Your task to perform on an android device: turn on notifications settings in the gmail app Image 0: 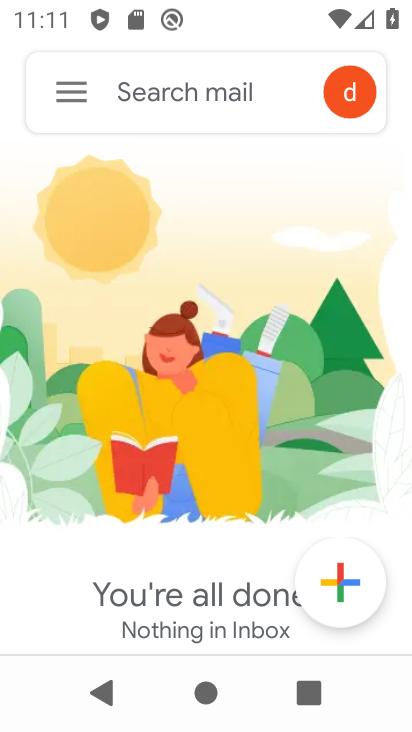
Step 0: click (72, 82)
Your task to perform on an android device: turn on notifications settings in the gmail app Image 1: 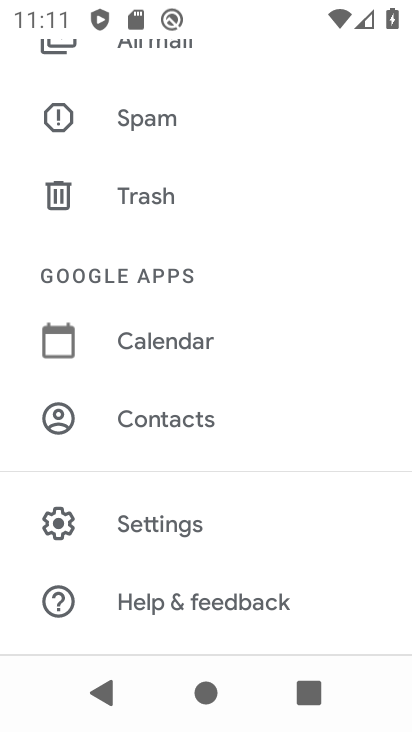
Step 1: click (195, 511)
Your task to perform on an android device: turn on notifications settings in the gmail app Image 2: 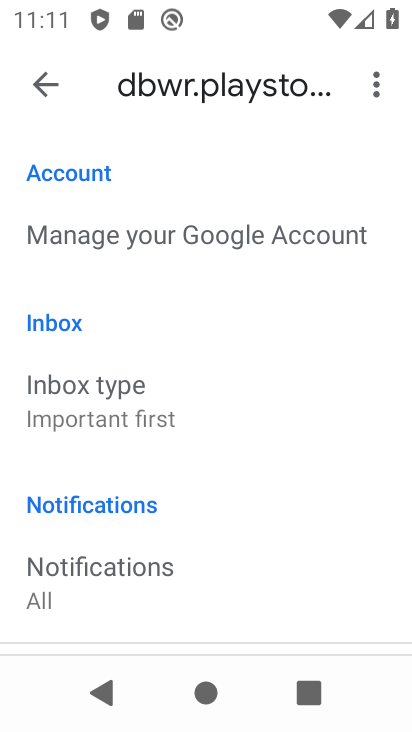
Step 2: drag from (252, 506) to (247, 147)
Your task to perform on an android device: turn on notifications settings in the gmail app Image 3: 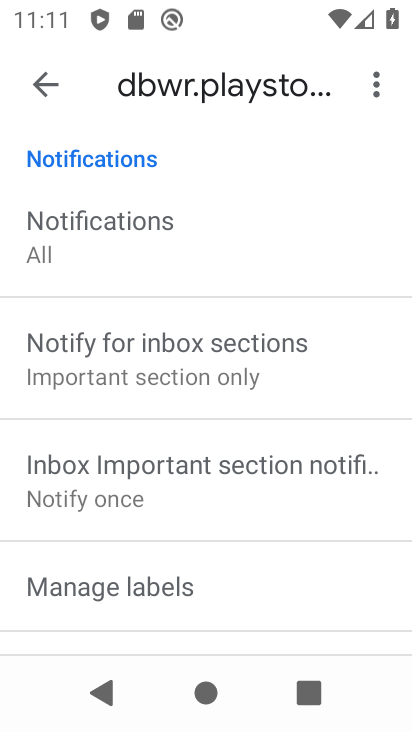
Step 3: drag from (271, 510) to (270, 139)
Your task to perform on an android device: turn on notifications settings in the gmail app Image 4: 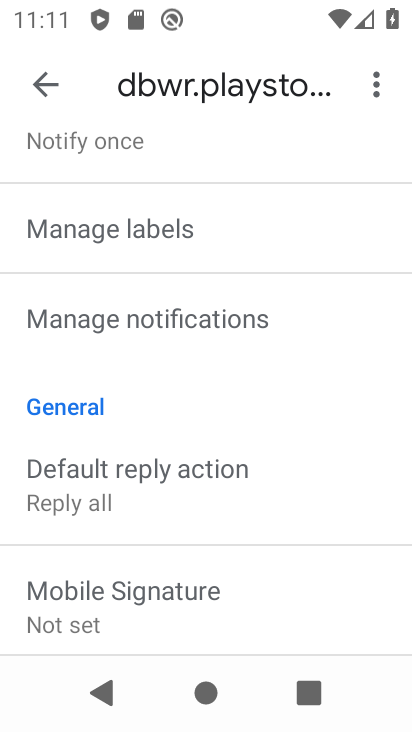
Step 4: drag from (245, 550) to (281, 136)
Your task to perform on an android device: turn on notifications settings in the gmail app Image 5: 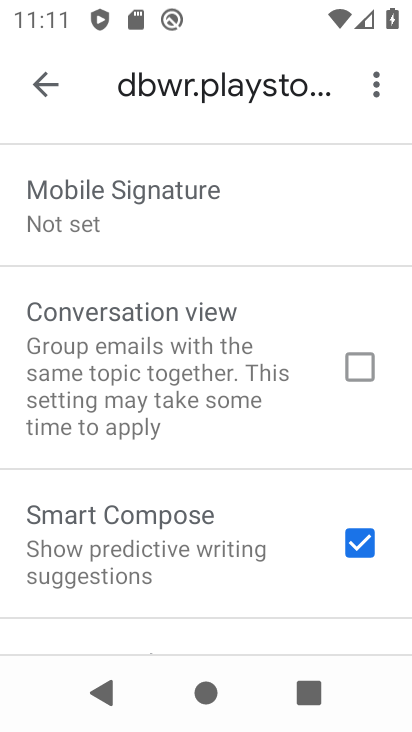
Step 5: drag from (235, 548) to (241, 163)
Your task to perform on an android device: turn on notifications settings in the gmail app Image 6: 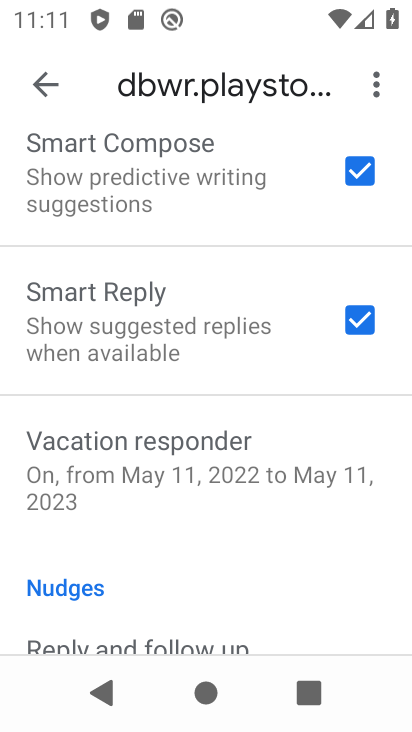
Step 6: drag from (184, 579) to (214, 203)
Your task to perform on an android device: turn on notifications settings in the gmail app Image 7: 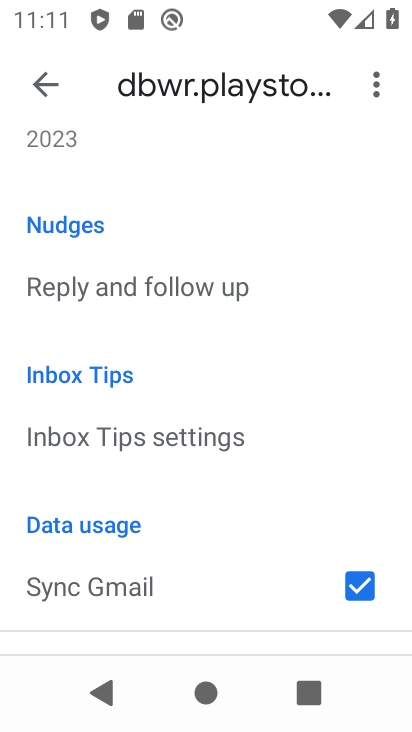
Step 7: drag from (216, 200) to (211, 586)
Your task to perform on an android device: turn on notifications settings in the gmail app Image 8: 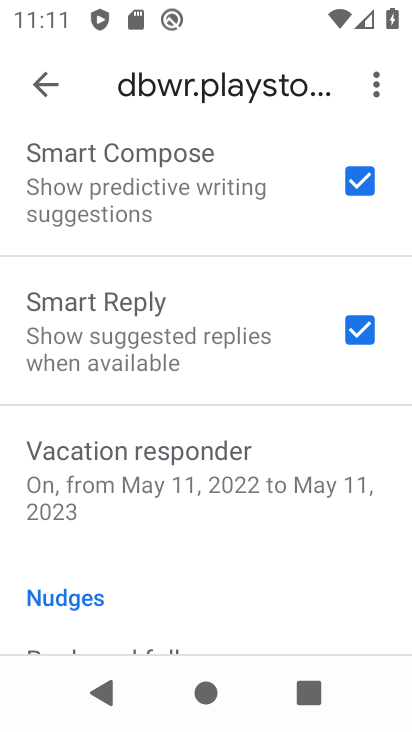
Step 8: drag from (201, 285) to (194, 655)
Your task to perform on an android device: turn on notifications settings in the gmail app Image 9: 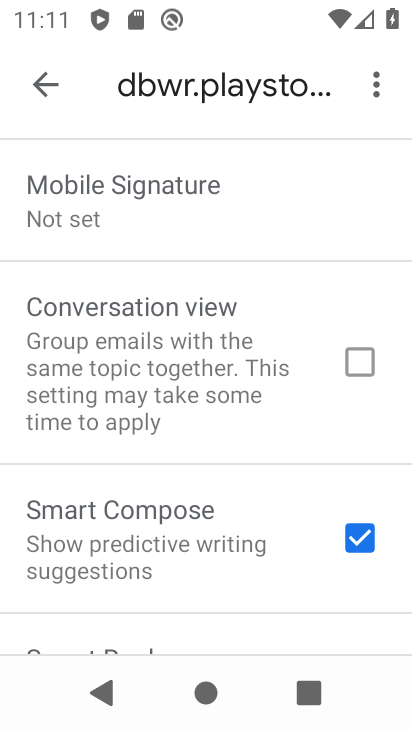
Step 9: drag from (181, 363) to (181, 625)
Your task to perform on an android device: turn on notifications settings in the gmail app Image 10: 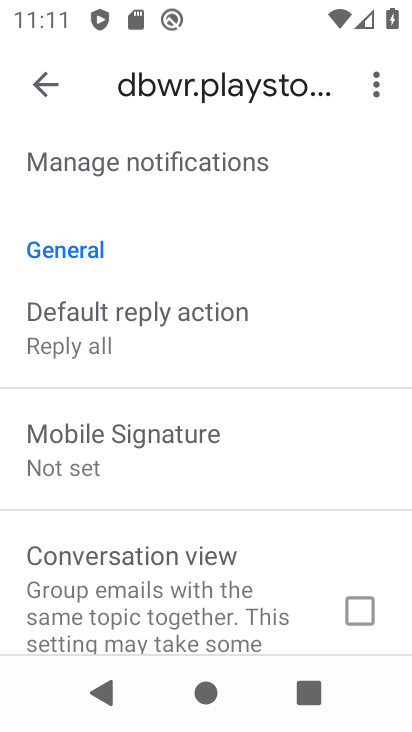
Step 10: drag from (161, 241) to (161, 564)
Your task to perform on an android device: turn on notifications settings in the gmail app Image 11: 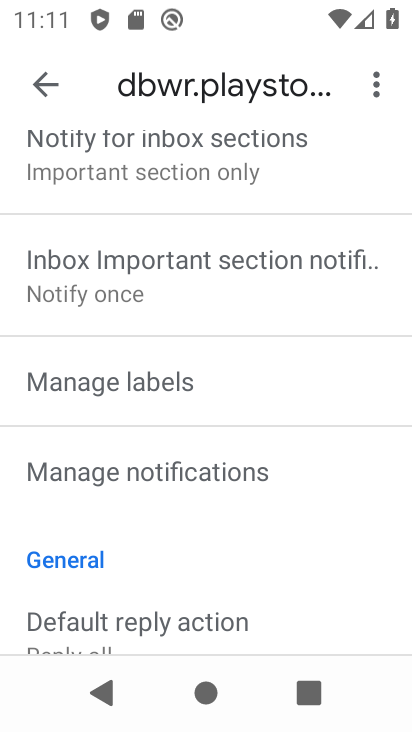
Step 11: click (155, 459)
Your task to perform on an android device: turn on notifications settings in the gmail app Image 12: 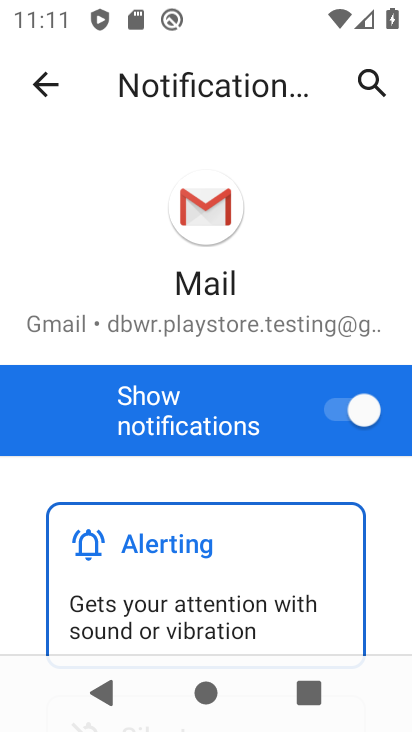
Step 12: task complete